Your task to perform on an android device: Open Chrome and go to settings Image 0: 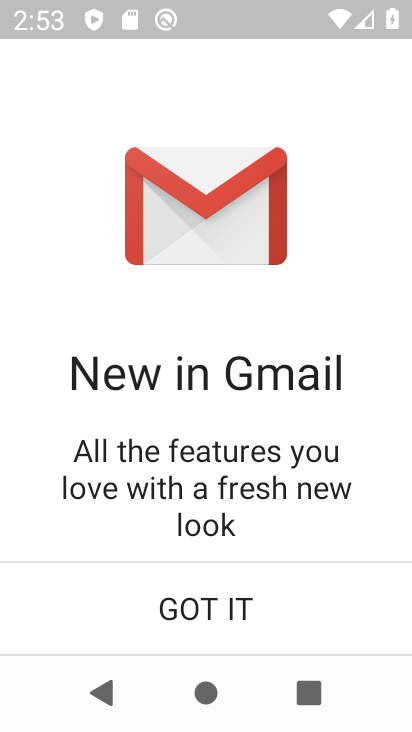
Step 0: press home button
Your task to perform on an android device: Open Chrome and go to settings Image 1: 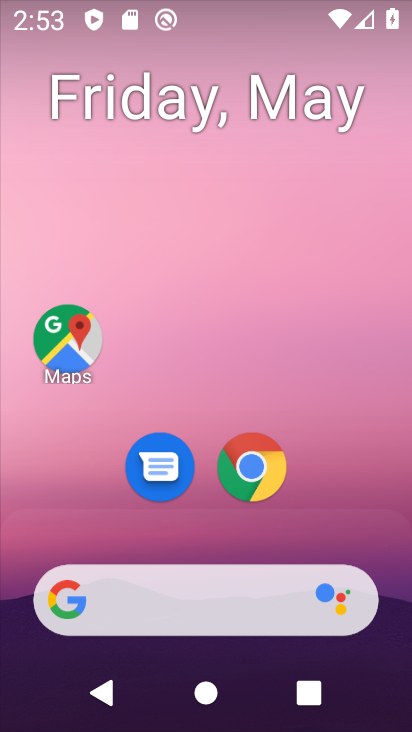
Step 1: click (262, 474)
Your task to perform on an android device: Open Chrome and go to settings Image 2: 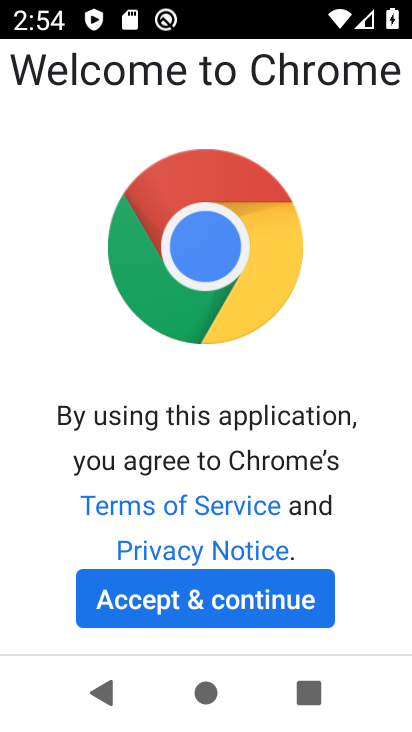
Step 2: click (238, 604)
Your task to perform on an android device: Open Chrome and go to settings Image 3: 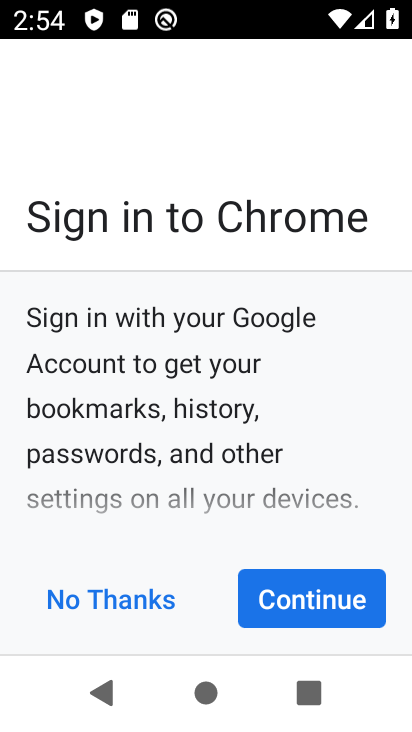
Step 3: click (136, 607)
Your task to perform on an android device: Open Chrome and go to settings Image 4: 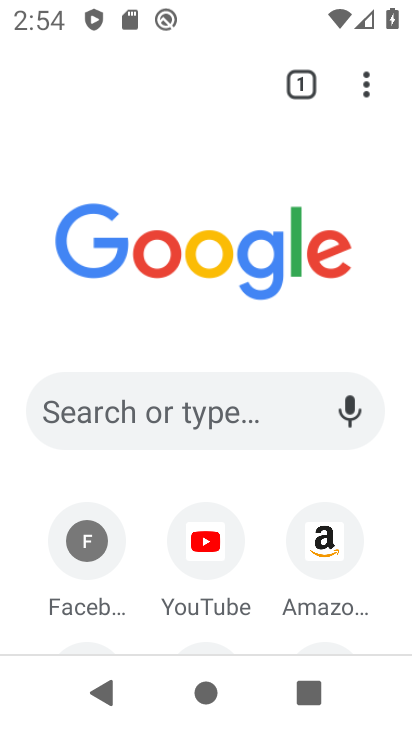
Step 4: task complete